Your task to perform on an android device: Go to CNN.com Image 0: 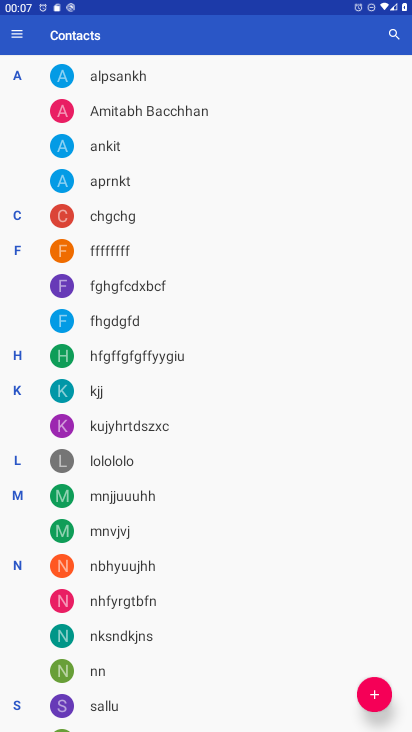
Step 0: press home button
Your task to perform on an android device: Go to CNN.com Image 1: 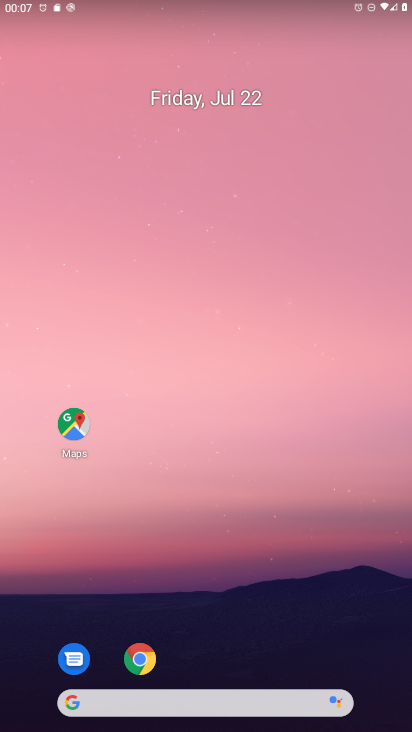
Step 1: click (142, 658)
Your task to perform on an android device: Go to CNN.com Image 2: 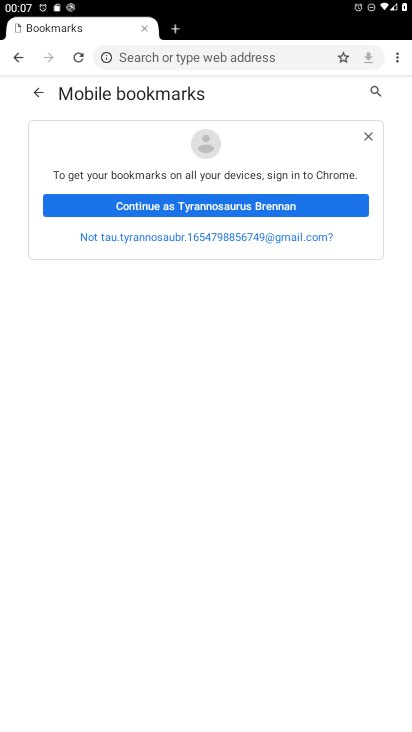
Step 2: click (295, 52)
Your task to perform on an android device: Go to CNN.com Image 3: 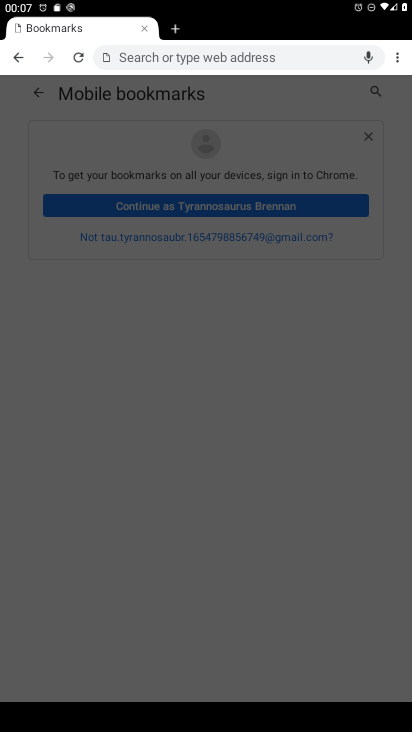
Step 3: type "CNN.com"
Your task to perform on an android device: Go to CNN.com Image 4: 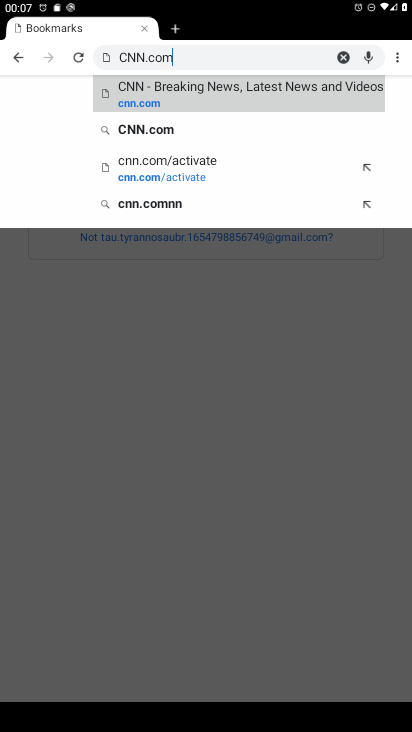
Step 4: click (146, 129)
Your task to perform on an android device: Go to CNN.com Image 5: 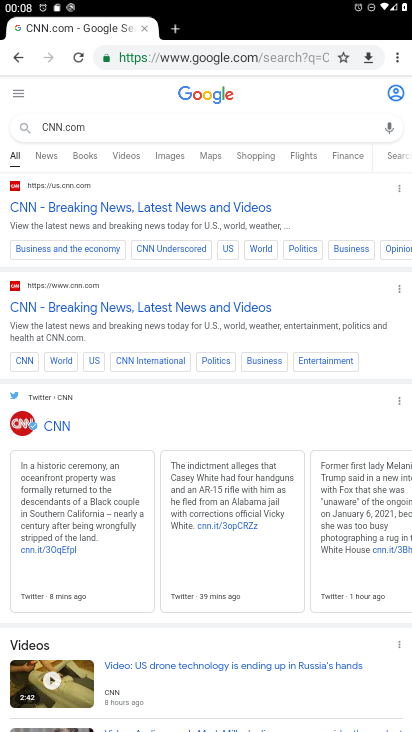
Step 5: click (51, 203)
Your task to perform on an android device: Go to CNN.com Image 6: 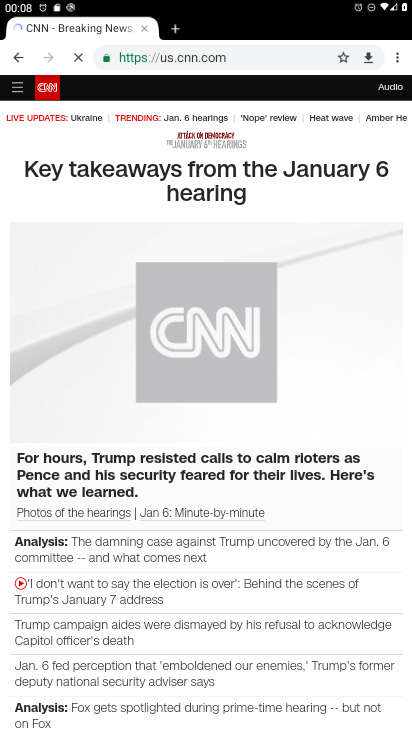
Step 6: task complete